Your task to perform on an android device: Open Google Maps Image 0: 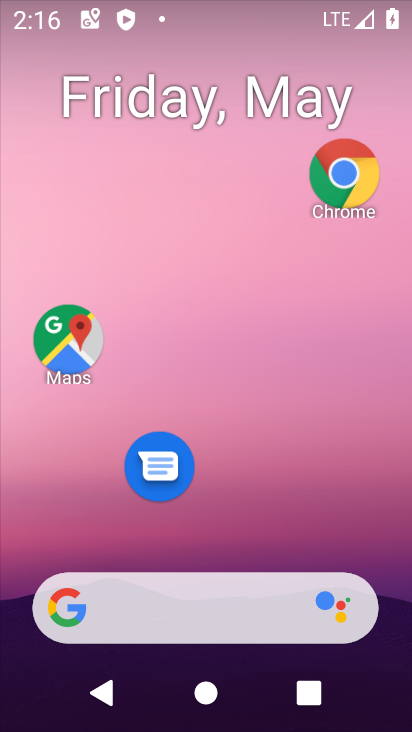
Step 0: click (84, 336)
Your task to perform on an android device: Open Google Maps Image 1: 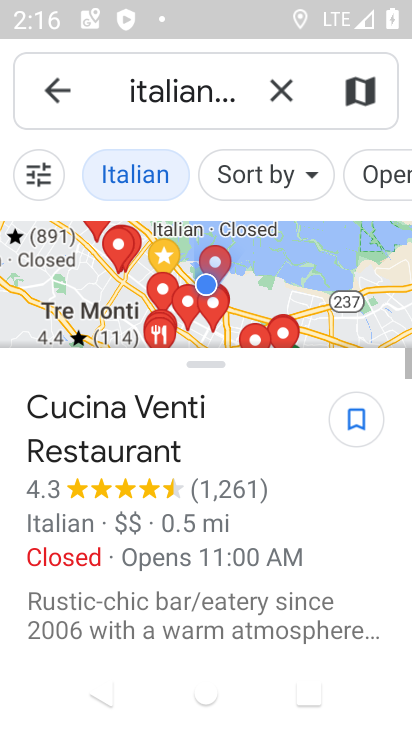
Step 1: click (55, 92)
Your task to perform on an android device: Open Google Maps Image 2: 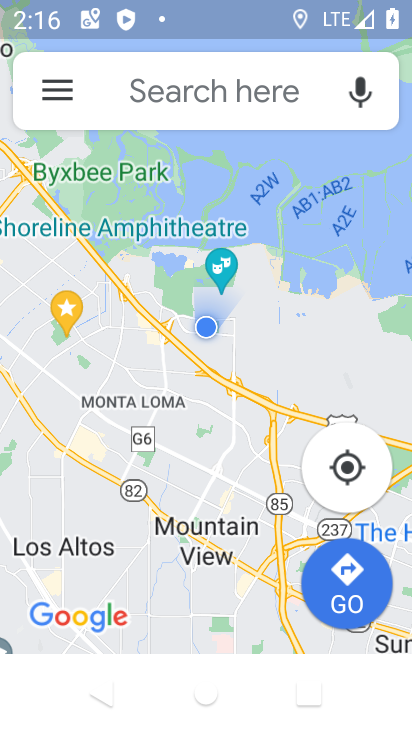
Step 2: task complete